Your task to perform on an android device: turn on location history Image 0: 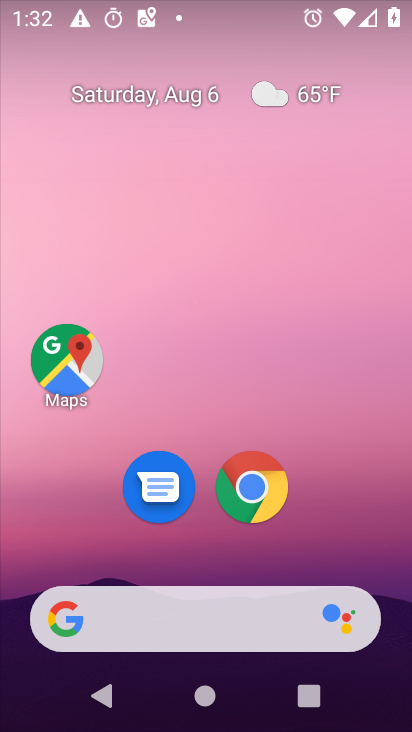
Step 0: drag from (200, 508) to (274, 6)
Your task to perform on an android device: turn on location history Image 1: 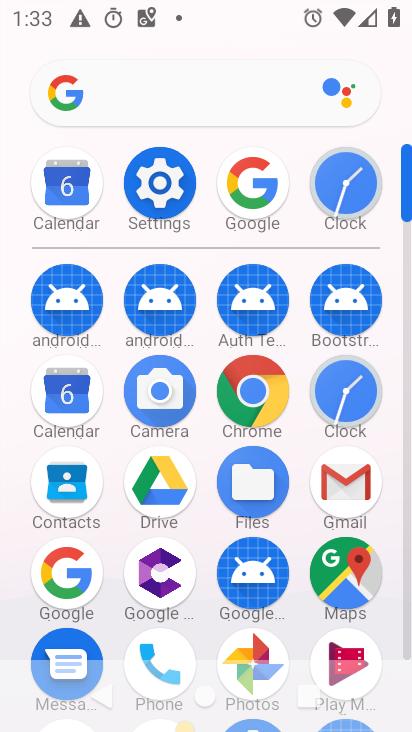
Step 1: click (168, 186)
Your task to perform on an android device: turn on location history Image 2: 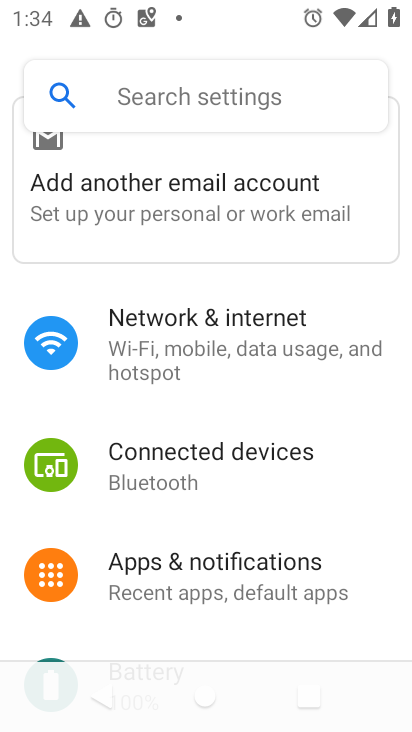
Step 2: drag from (246, 481) to (290, 67)
Your task to perform on an android device: turn on location history Image 3: 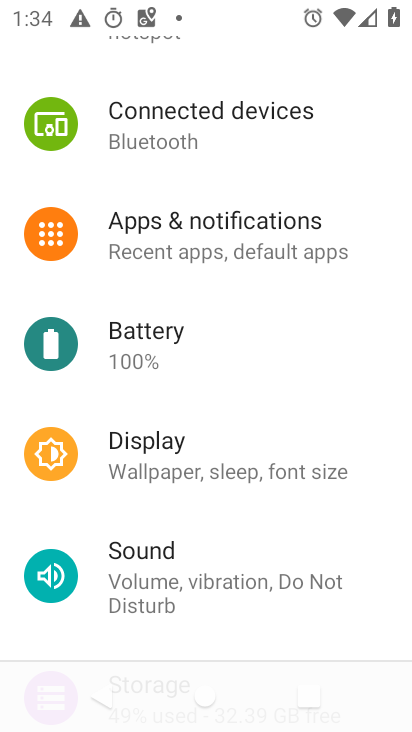
Step 3: drag from (256, 552) to (333, 48)
Your task to perform on an android device: turn on location history Image 4: 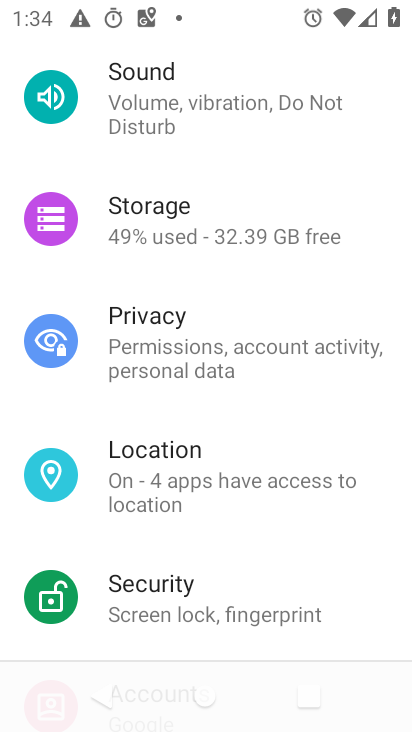
Step 4: click (212, 477)
Your task to perform on an android device: turn on location history Image 5: 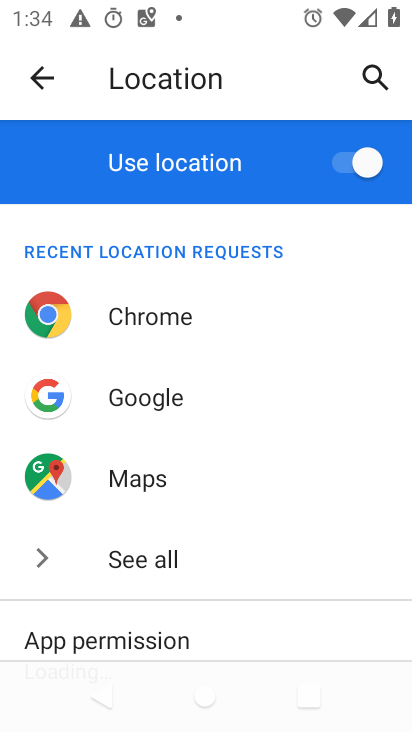
Step 5: drag from (194, 609) to (270, 71)
Your task to perform on an android device: turn on location history Image 6: 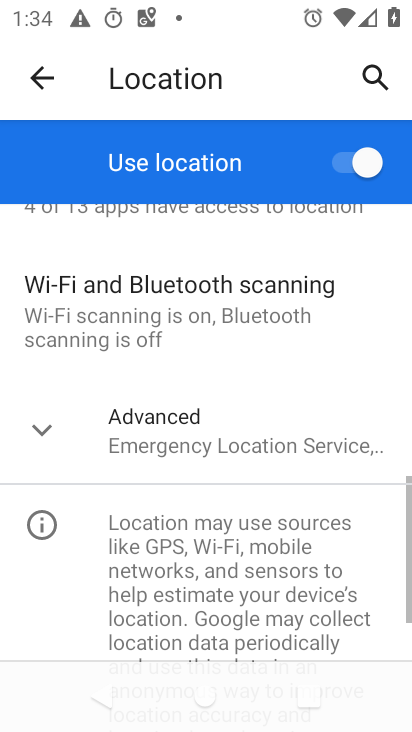
Step 6: click (192, 440)
Your task to perform on an android device: turn on location history Image 7: 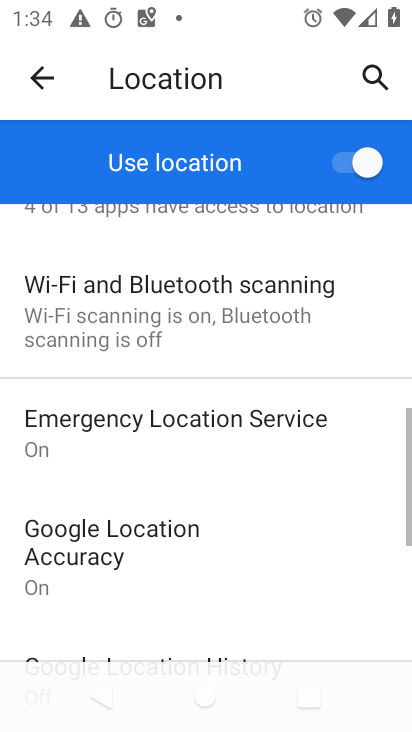
Step 7: drag from (234, 611) to (296, 288)
Your task to perform on an android device: turn on location history Image 8: 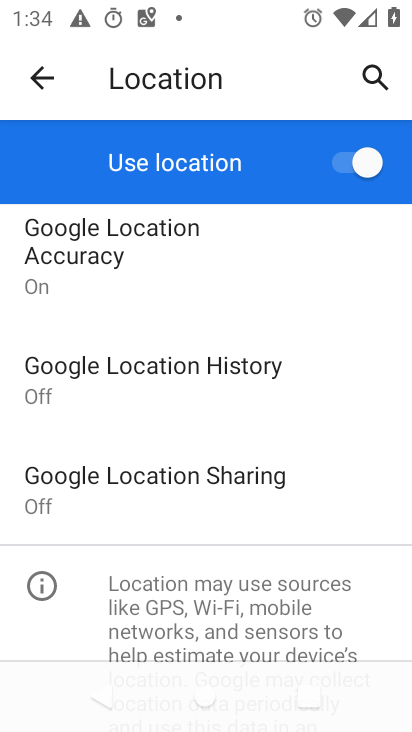
Step 8: click (125, 387)
Your task to perform on an android device: turn on location history Image 9: 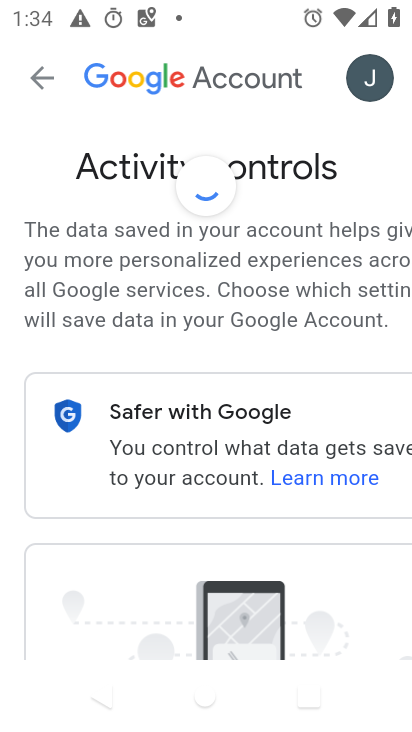
Step 9: drag from (169, 587) to (231, 110)
Your task to perform on an android device: turn on location history Image 10: 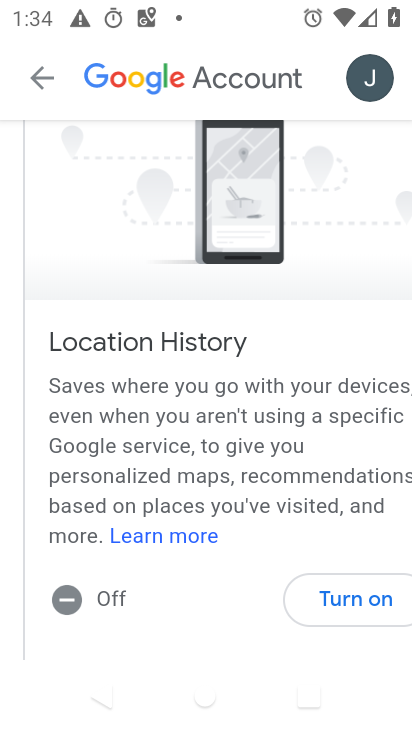
Step 10: click (352, 595)
Your task to perform on an android device: turn on location history Image 11: 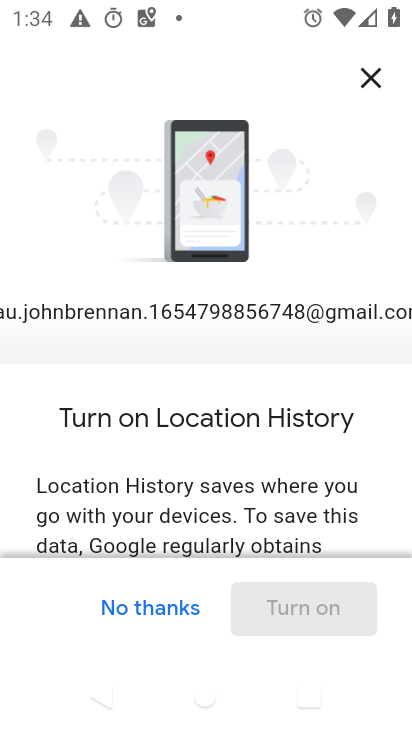
Step 11: drag from (209, 470) to (273, 52)
Your task to perform on an android device: turn on location history Image 12: 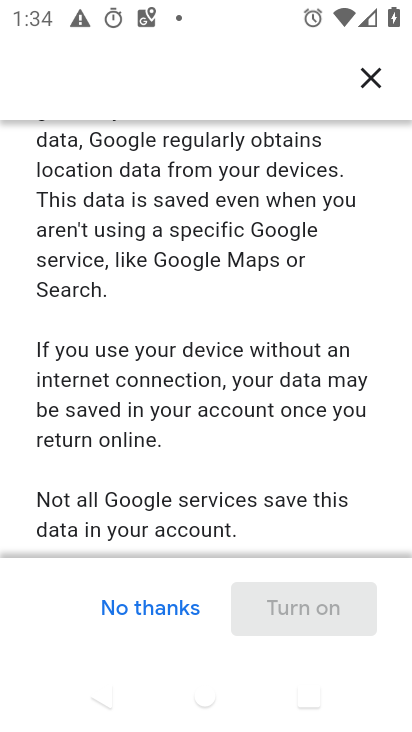
Step 12: drag from (206, 490) to (275, 45)
Your task to perform on an android device: turn on location history Image 13: 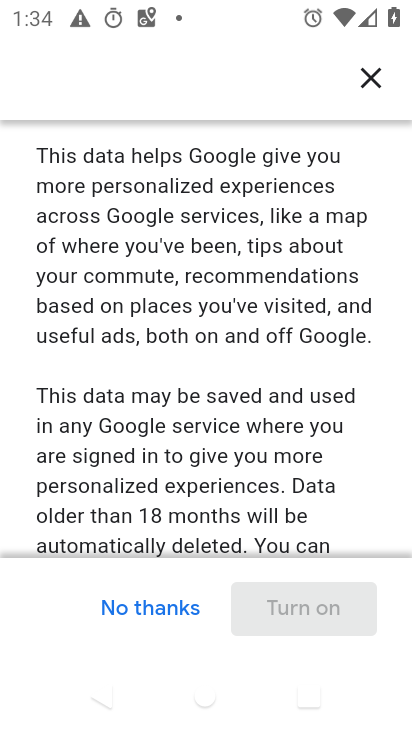
Step 13: drag from (164, 474) to (233, 11)
Your task to perform on an android device: turn on location history Image 14: 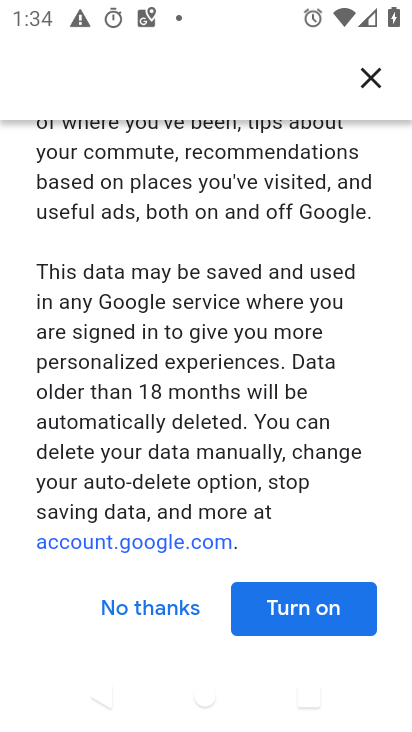
Step 14: click (298, 616)
Your task to perform on an android device: turn on location history Image 15: 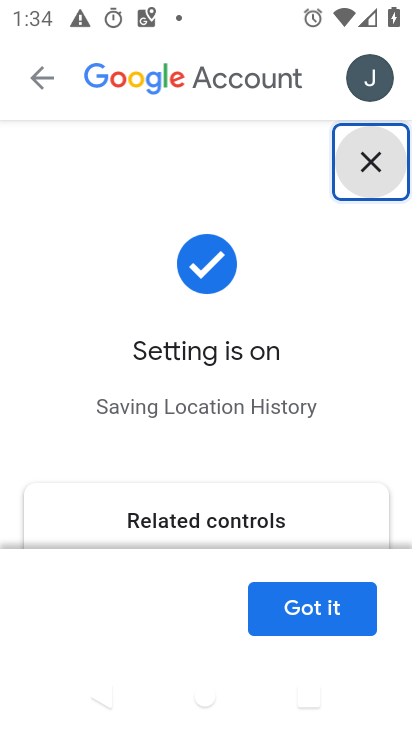
Step 15: task complete